Your task to perform on an android device: turn on airplane mode Image 0: 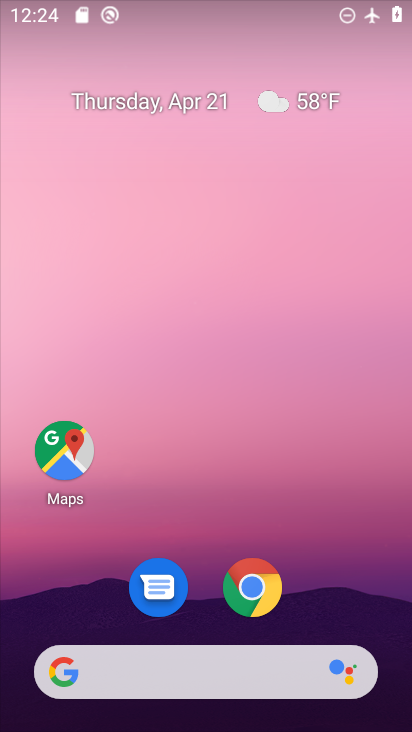
Step 0: drag from (185, 456) to (307, 27)
Your task to perform on an android device: turn on airplane mode Image 1: 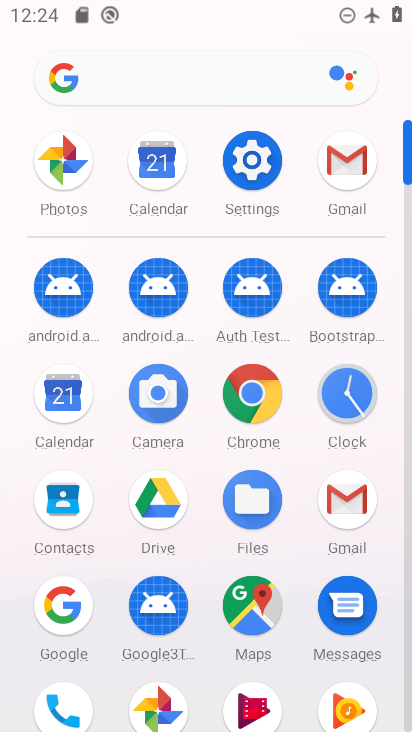
Step 1: click (261, 166)
Your task to perform on an android device: turn on airplane mode Image 2: 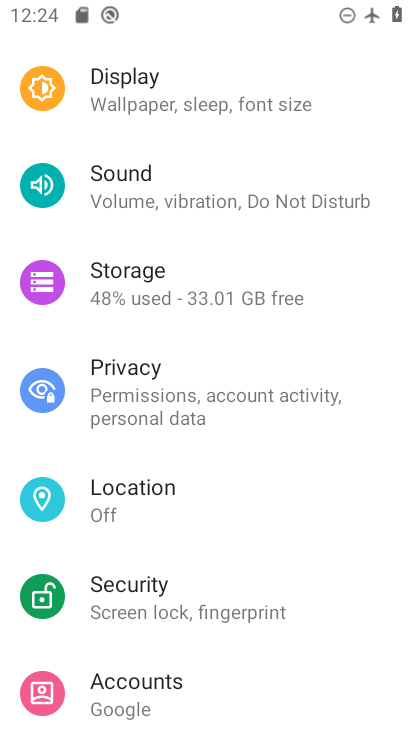
Step 2: drag from (218, 240) to (153, 625)
Your task to perform on an android device: turn on airplane mode Image 3: 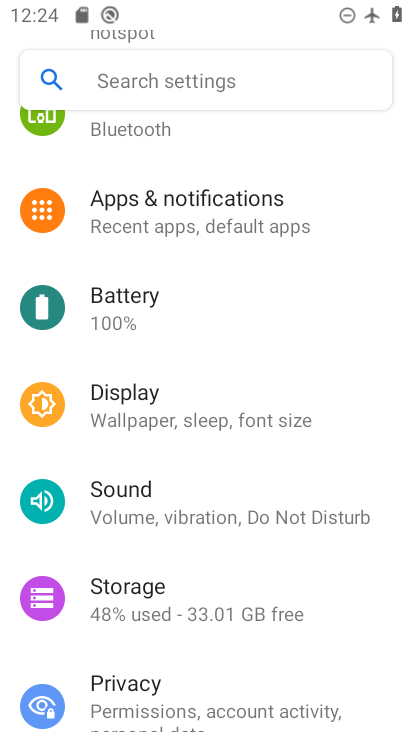
Step 3: drag from (209, 191) to (175, 492)
Your task to perform on an android device: turn on airplane mode Image 4: 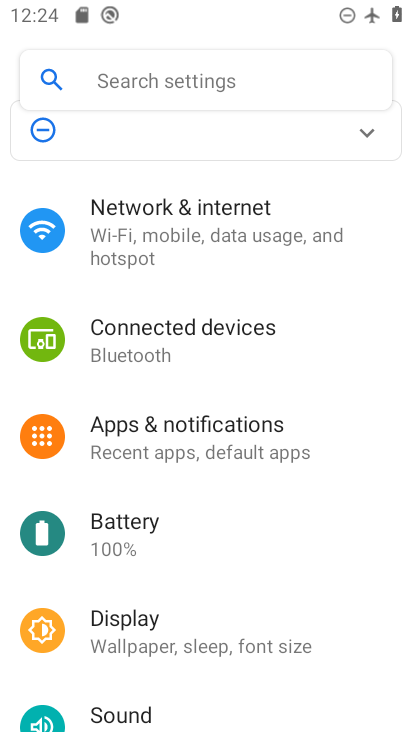
Step 4: click (180, 257)
Your task to perform on an android device: turn on airplane mode Image 5: 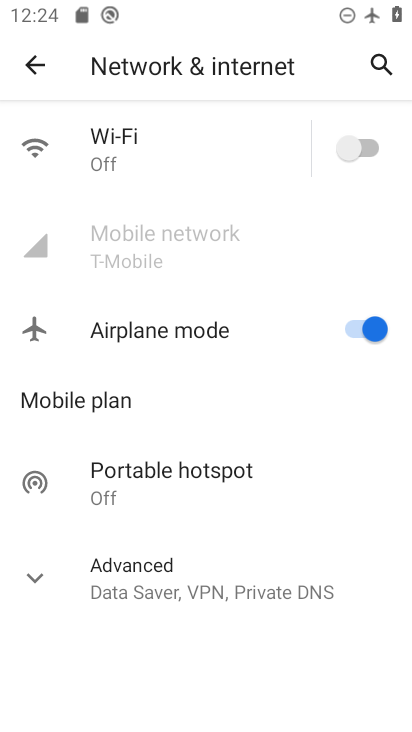
Step 5: task complete